Your task to perform on an android device: Open Chrome and go to the settings page Image 0: 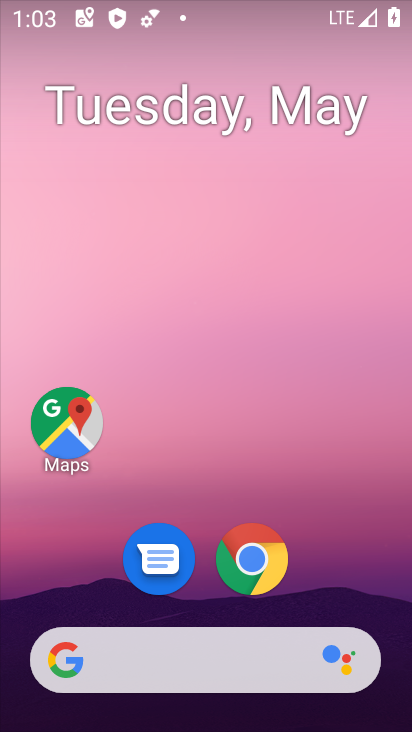
Step 0: click (262, 564)
Your task to perform on an android device: Open Chrome and go to the settings page Image 1: 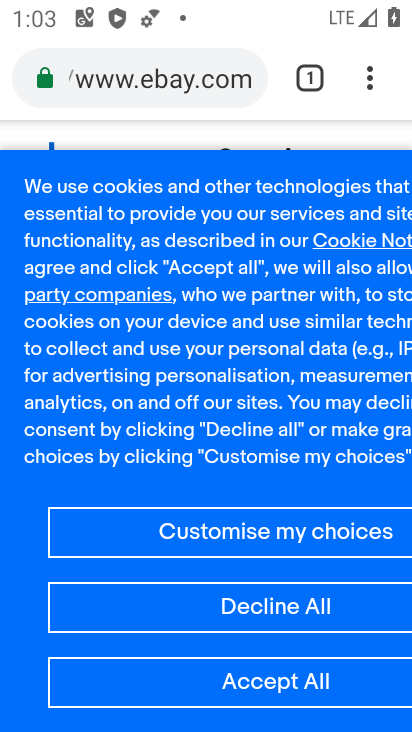
Step 1: click (369, 71)
Your task to perform on an android device: Open Chrome and go to the settings page Image 2: 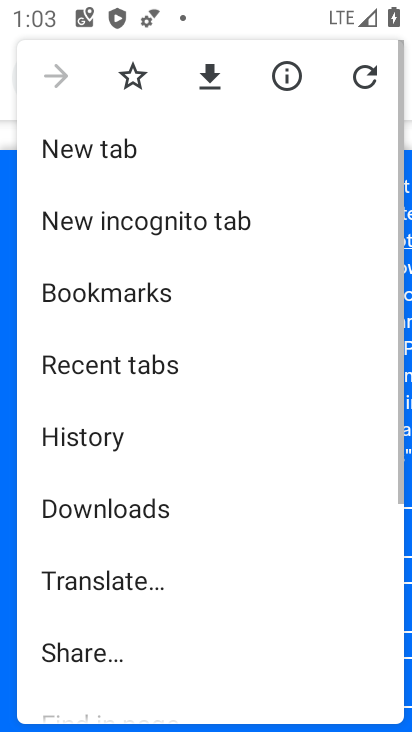
Step 2: drag from (231, 613) to (238, 142)
Your task to perform on an android device: Open Chrome and go to the settings page Image 3: 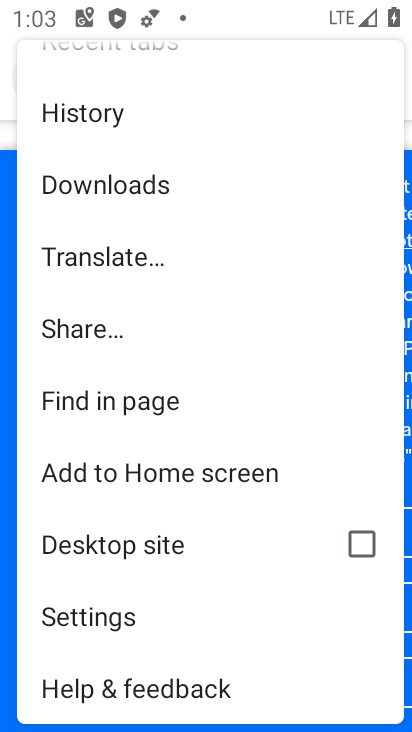
Step 3: click (149, 619)
Your task to perform on an android device: Open Chrome and go to the settings page Image 4: 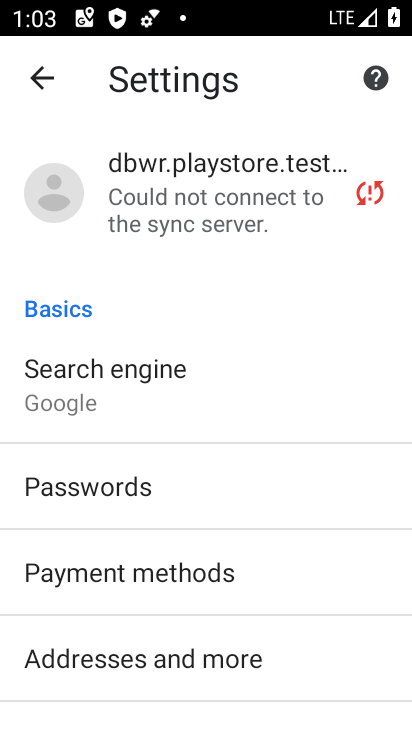
Step 4: task complete